Your task to perform on an android device: Open notification settings Image 0: 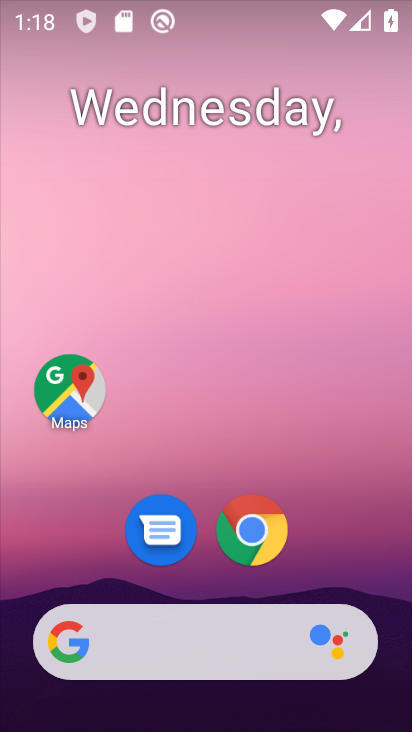
Step 0: drag from (158, 608) to (293, 249)
Your task to perform on an android device: Open notification settings Image 1: 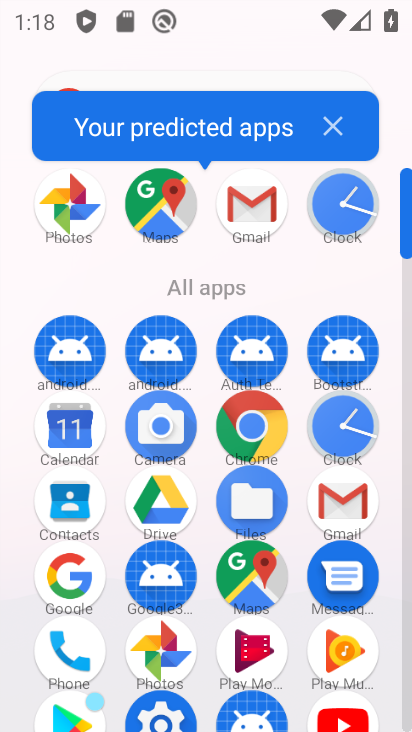
Step 1: drag from (184, 671) to (284, 380)
Your task to perform on an android device: Open notification settings Image 2: 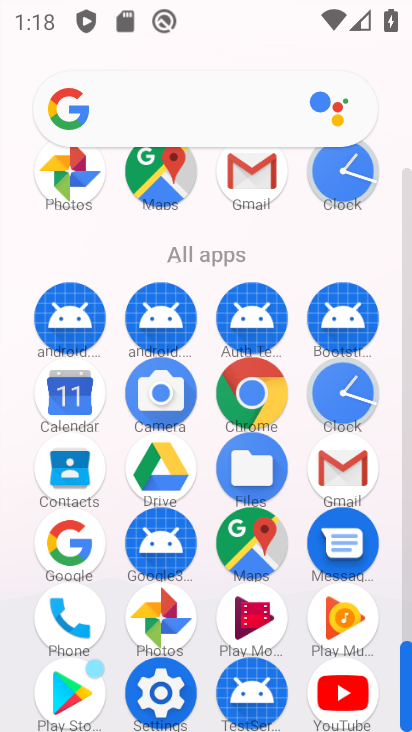
Step 2: click (166, 689)
Your task to perform on an android device: Open notification settings Image 3: 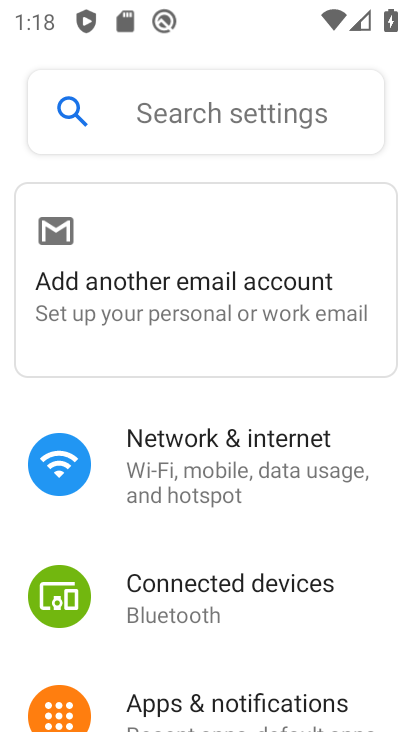
Step 3: drag from (218, 689) to (263, 468)
Your task to perform on an android device: Open notification settings Image 4: 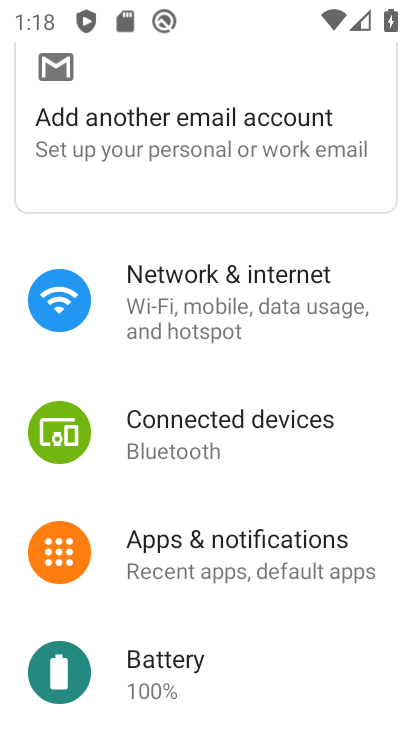
Step 4: click (246, 559)
Your task to perform on an android device: Open notification settings Image 5: 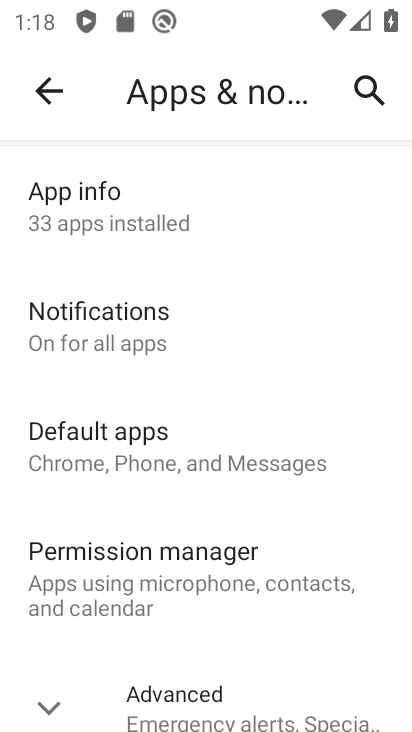
Step 5: click (198, 340)
Your task to perform on an android device: Open notification settings Image 6: 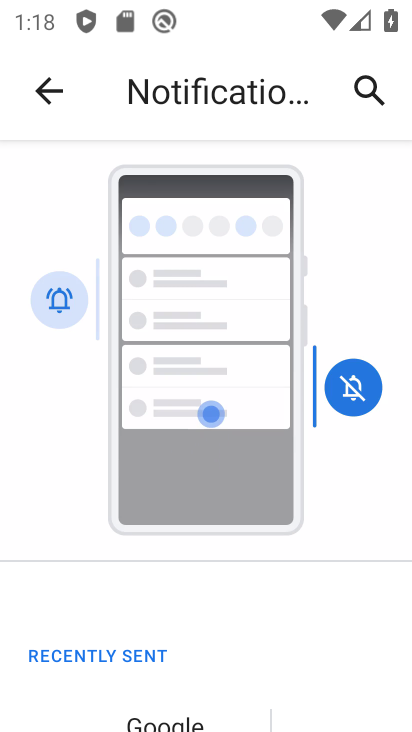
Step 6: task complete